Your task to perform on an android device: Open Chrome and go to settings Image 0: 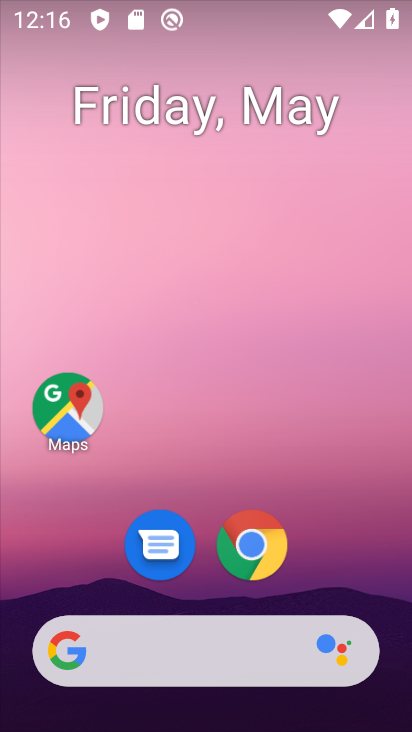
Step 0: click (247, 545)
Your task to perform on an android device: Open Chrome and go to settings Image 1: 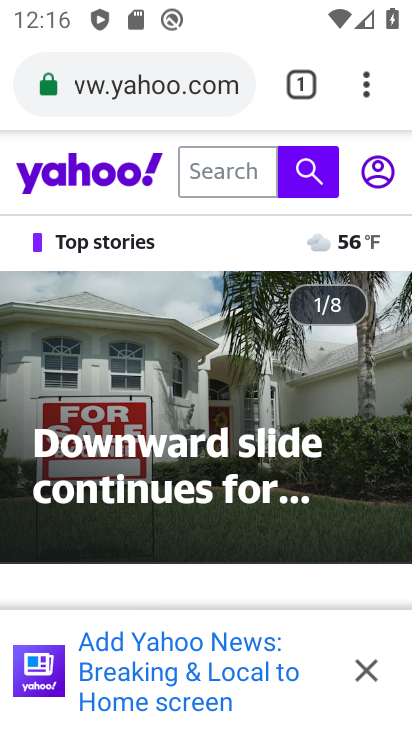
Step 1: click (373, 103)
Your task to perform on an android device: Open Chrome and go to settings Image 2: 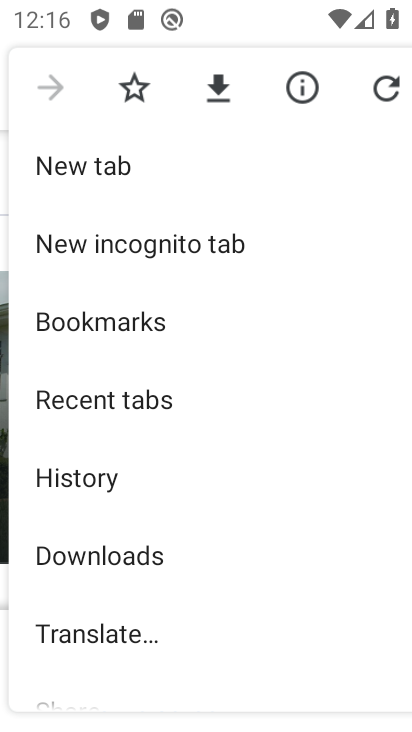
Step 2: drag from (235, 531) to (244, 135)
Your task to perform on an android device: Open Chrome and go to settings Image 3: 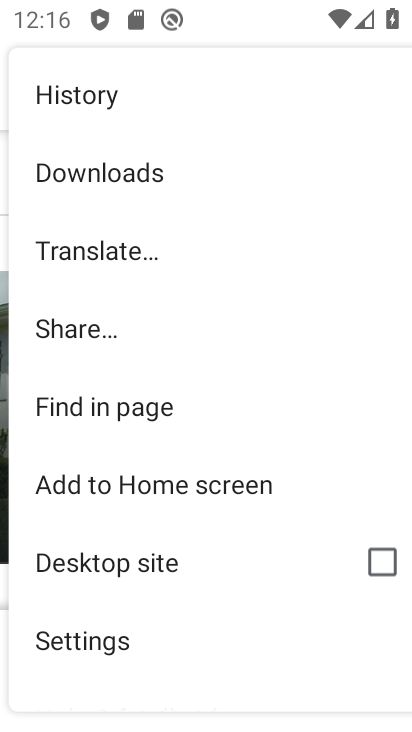
Step 3: click (126, 653)
Your task to perform on an android device: Open Chrome and go to settings Image 4: 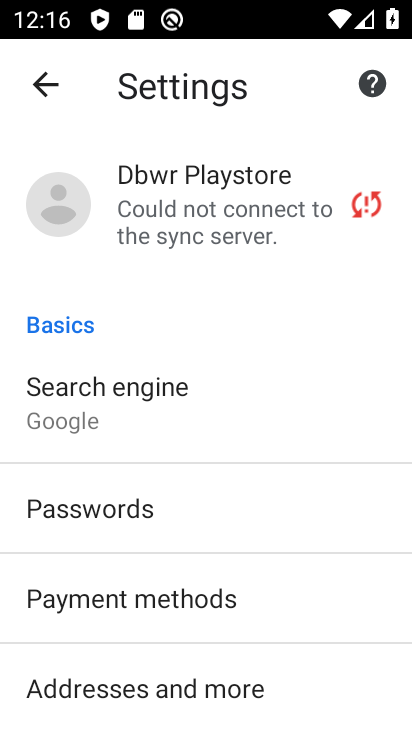
Step 4: task complete